Your task to perform on an android device: Go to Google maps Image 0: 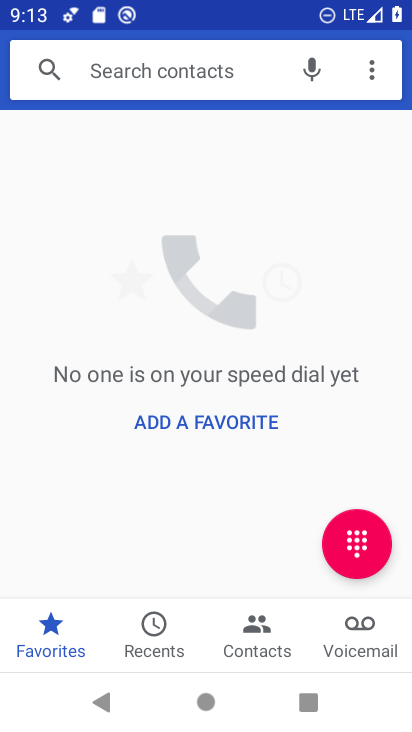
Step 0: press back button
Your task to perform on an android device: Go to Google maps Image 1: 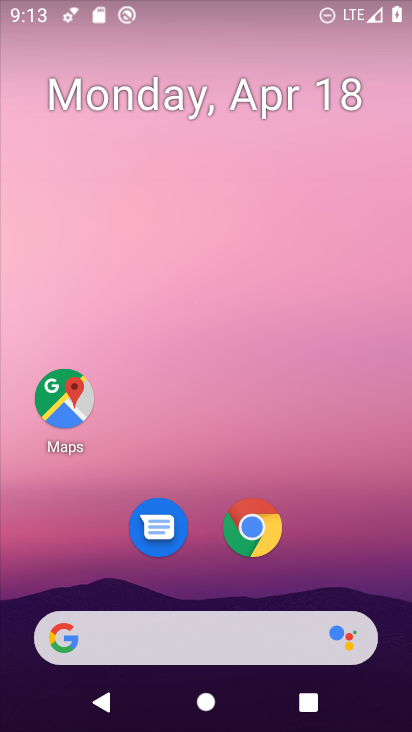
Step 1: drag from (321, 474) to (268, 31)
Your task to perform on an android device: Go to Google maps Image 2: 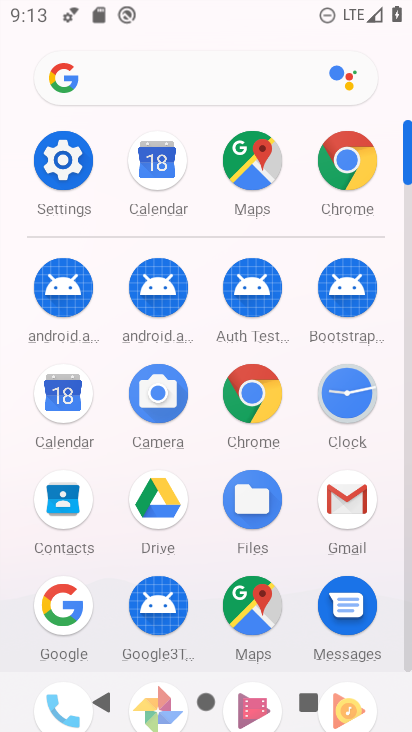
Step 2: click (246, 596)
Your task to perform on an android device: Go to Google maps Image 3: 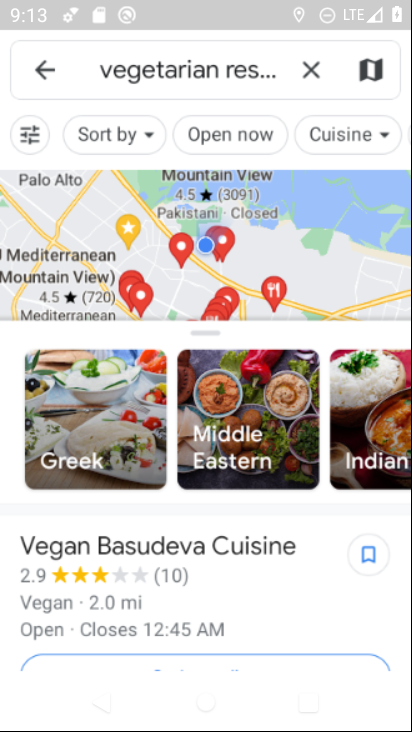
Step 3: click (310, 72)
Your task to perform on an android device: Go to Google maps Image 4: 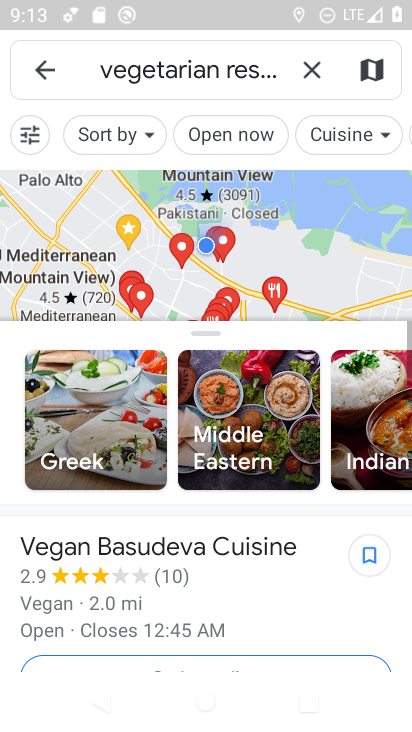
Step 4: drag from (263, 351) to (261, 195)
Your task to perform on an android device: Go to Google maps Image 5: 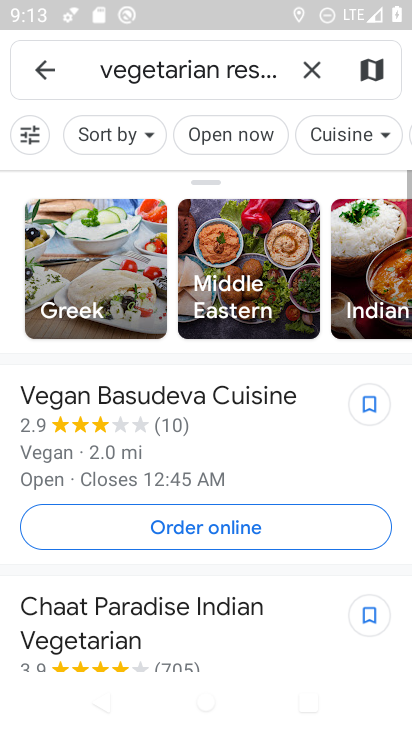
Step 5: click (43, 68)
Your task to perform on an android device: Go to Google maps Image 6: 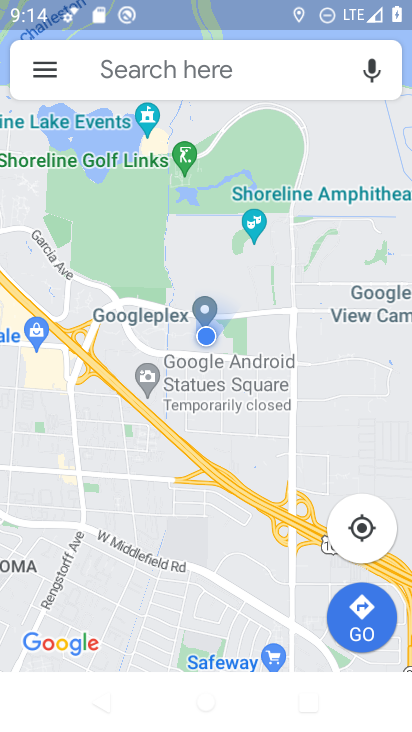
Step 6: task complete